Your task to perform on an android device: open wifi settings Image 0: 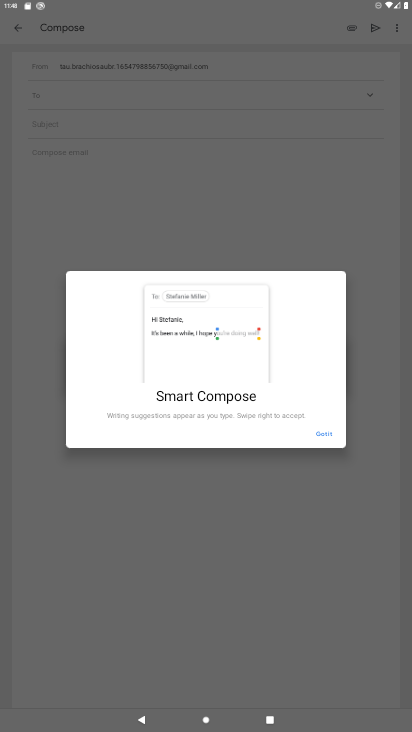
Step 0: press home button
Your task to perform on an android device: open wifi settings Image 1: 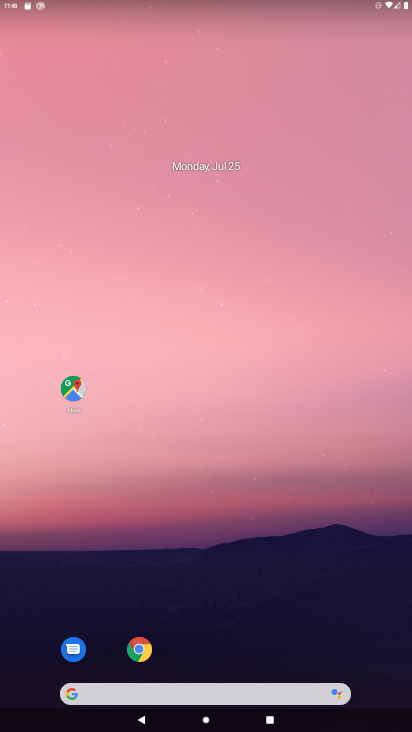
Step 1: drag from (359, 652) to (324, 155)
Your task to perform on an android device: open wifi settings Image 2: 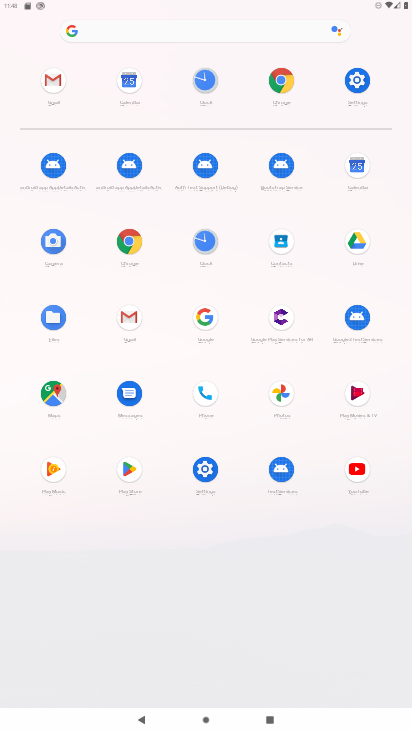
Step 2: click (203, 470)
Your task to perform on an android device: open wifi settings Image 3: 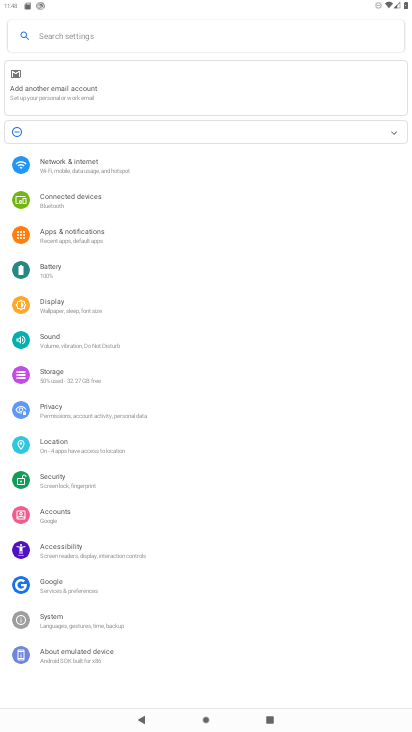
Step 3: click (81, 164)
Your task to perform on an android device: open wifi settings Image 4: 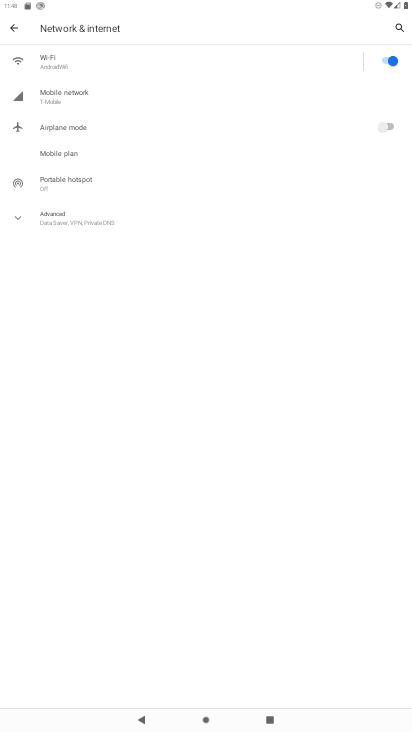
Step 4: click (62, 58)
Your task to perform on an android device: open wifi settings Image 5: 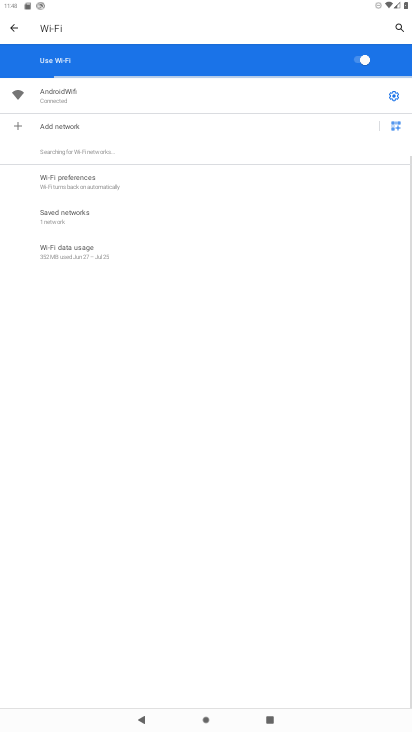
Step 5: click (398, 93)
Your task to perform on an android device: open wifi settings Image 6: 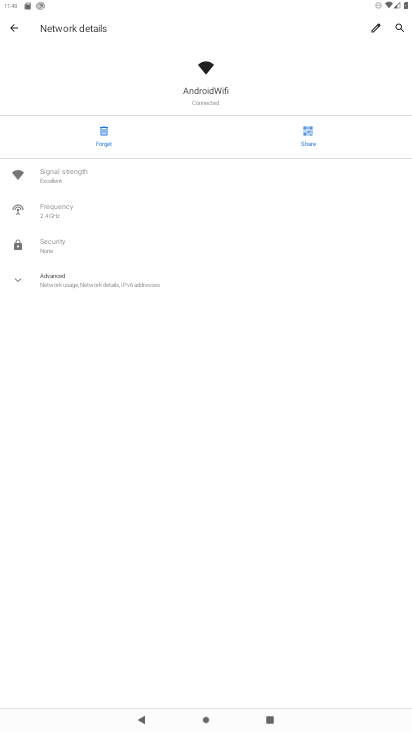
Step 6: task complete